Your task to perform on an android device: Open internet settings Image 0: 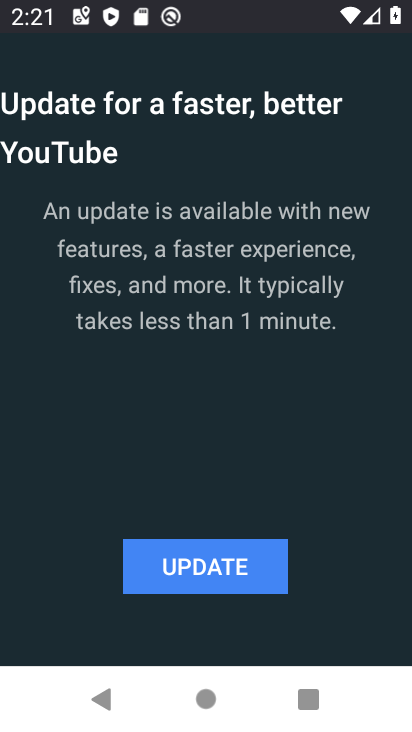
Step 0: press home button
Your task to perform on an android device: Open internet settings Image 1: 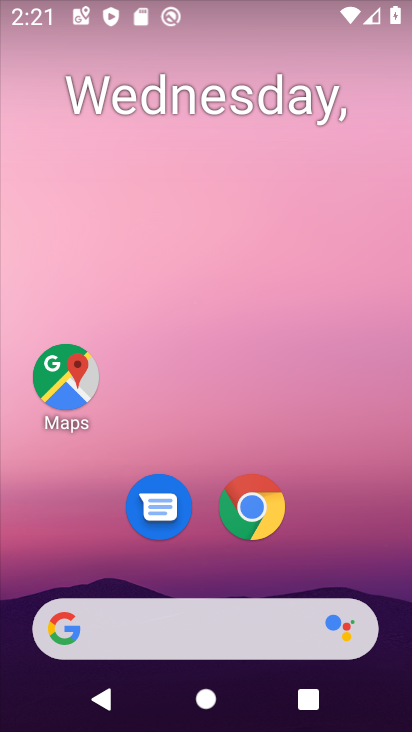
Step 1: drag from (334, 518) to (369, 122)
Your task to perform on an android device: Open internet settings Image 2: 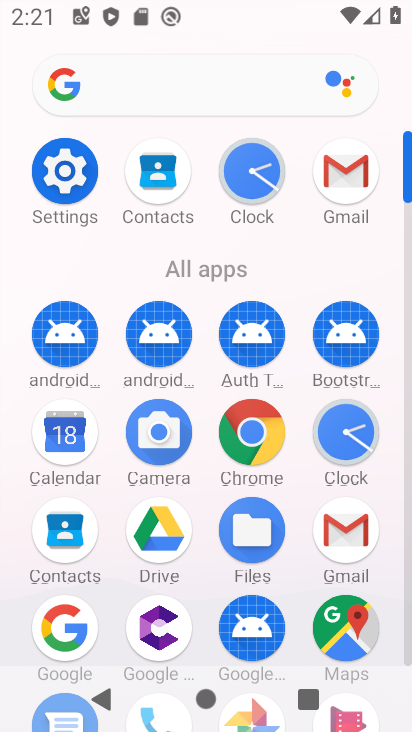
Step 2: click (61, 164)
Your task to perform on an android device: Open internet settings Image 3: 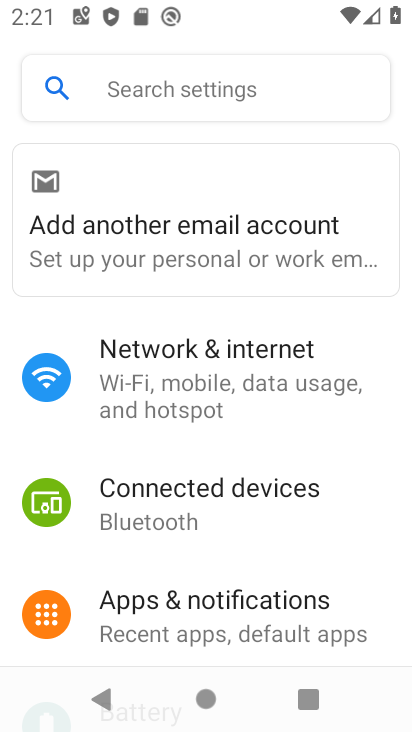
Step 3: click (221, 363)
Your task to perform on an android device: Open internet settings Image 4: 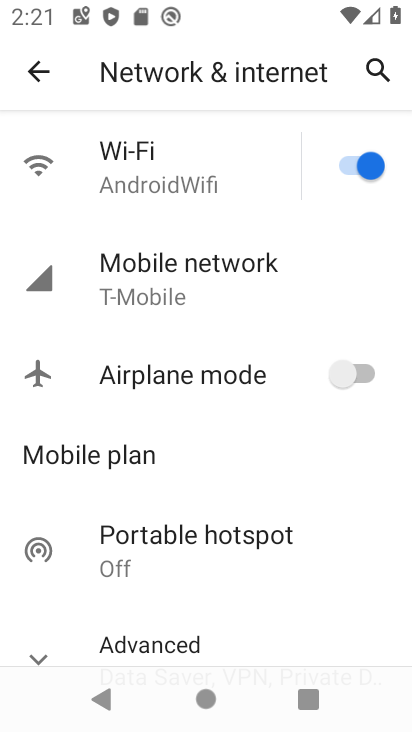
Step 4: task complete